Your task to perform on an android device: open app "Pluto TV - Live TV and Movies" (install if not already installed) Image 0: 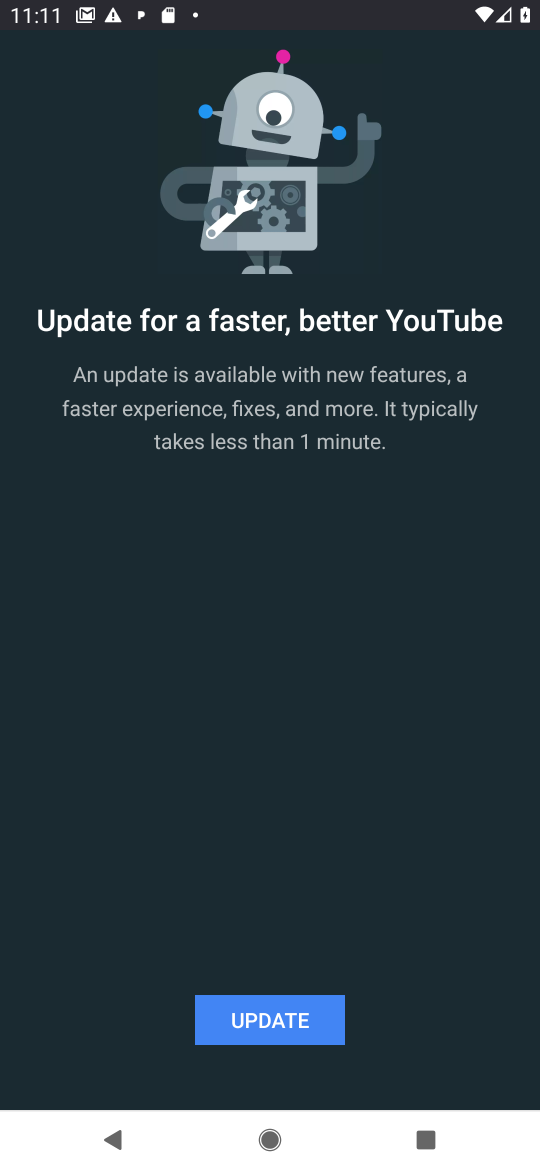
Step 0: press back button
Your task to perform on an android device: open app "Pluto TV - Live TV and Movies" (install if not already installed) Image 1: 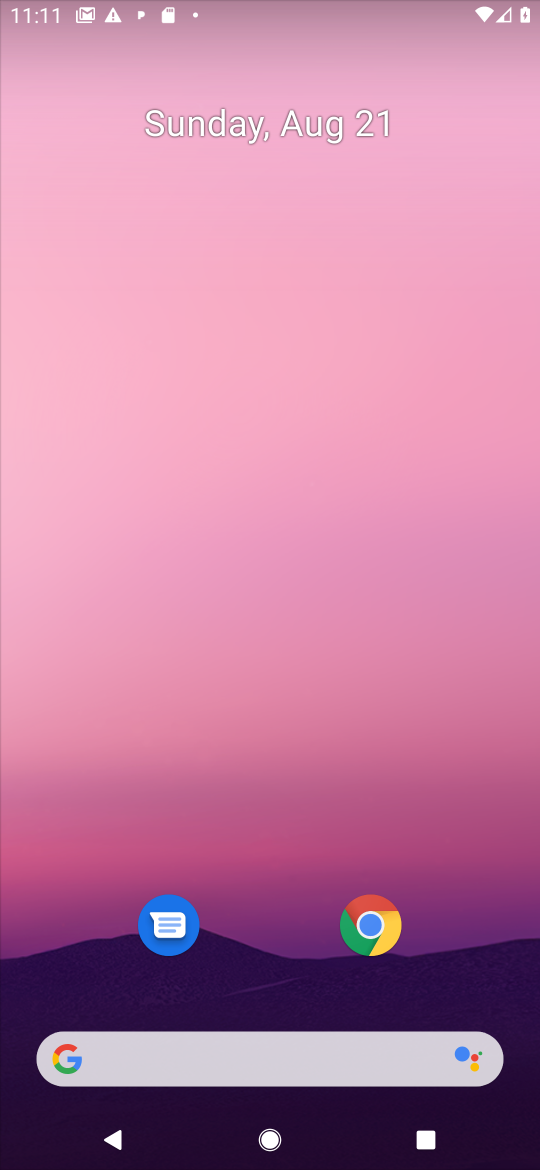
Step 1: drag from (241, 999) to (293, 70)
Your task to perform on an android device: open app "Pluto TV - Live TV and Movies" (install if not already installed) Image 2: 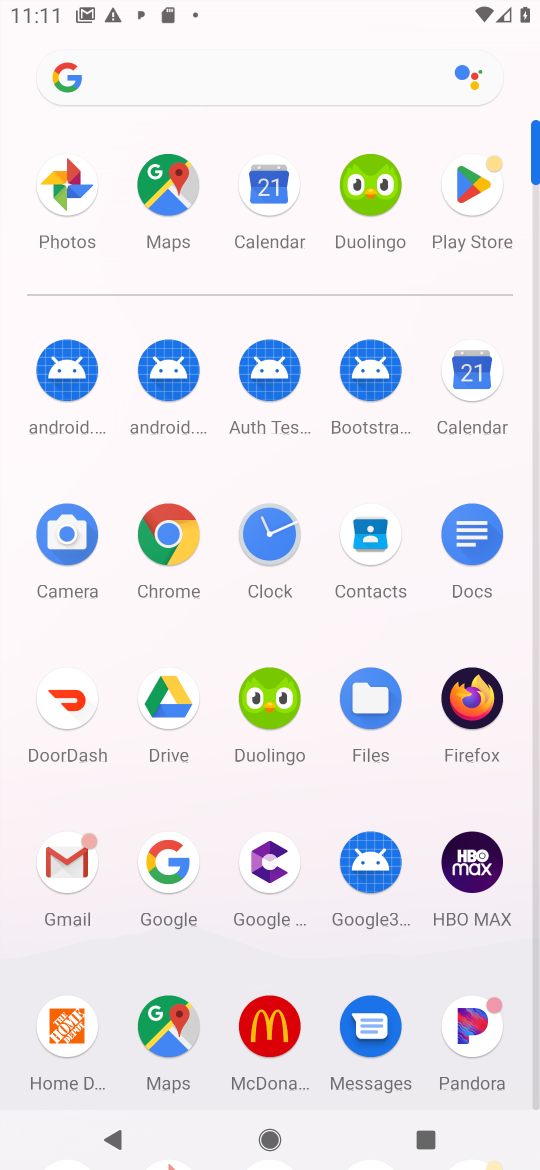
Step 2: click (457, 192)
Your task to perform on an android device: open app "Pluto TV - Live TV and Movies" (install if not already installed) Image 3: 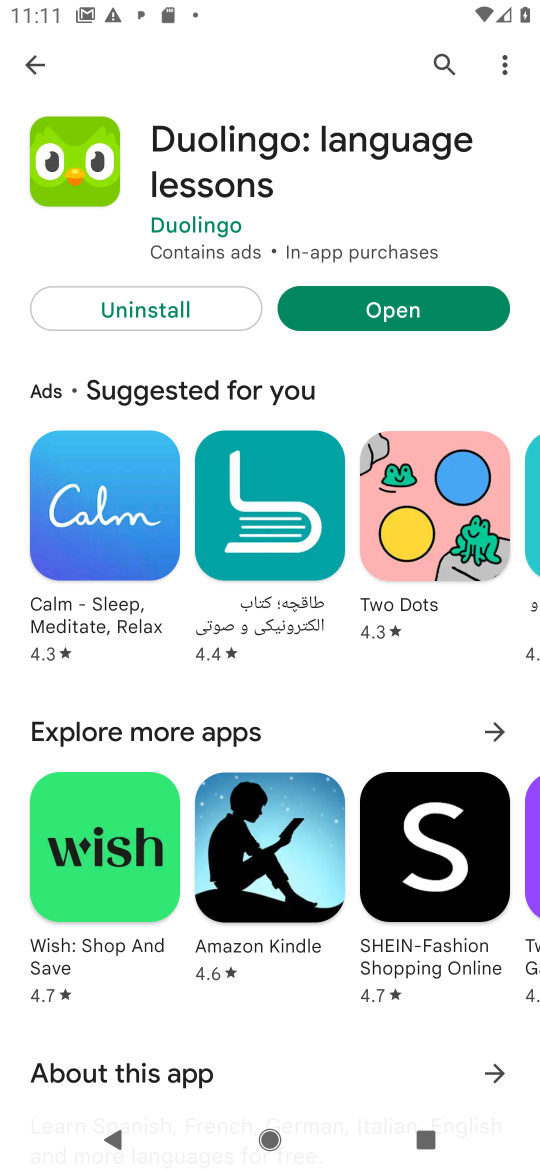
Step 3: click (431, 64)
Your task to perform on an android device: open app "Pluto TV - Live TV and Movies" (install if not already installed) Image 4: 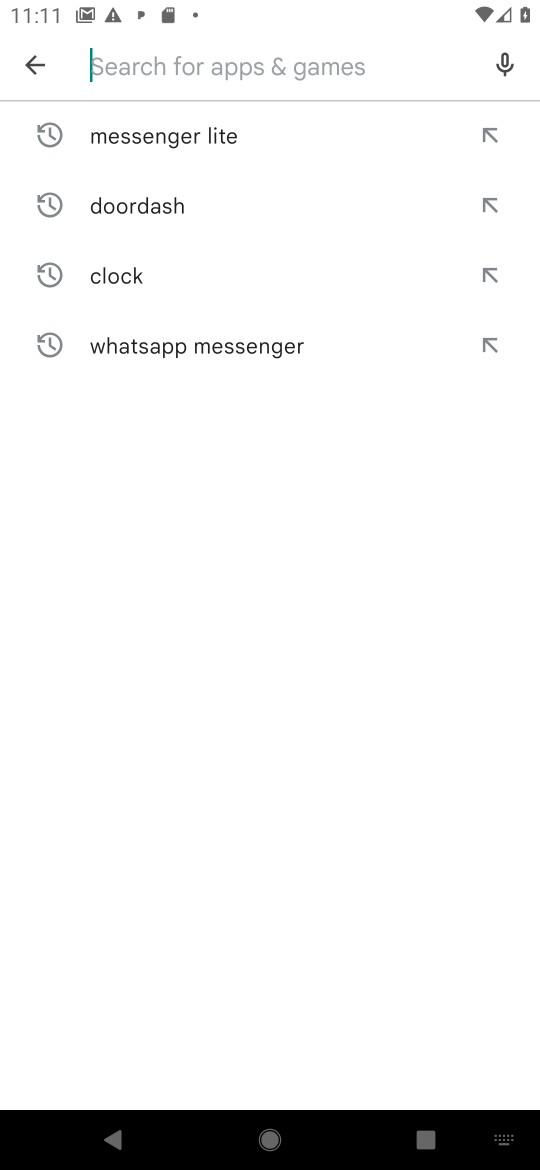
Step 4: click (290, 79)
Your task to perform on an android device: open app "Pluto TV - Live TV and Movies" (install if not already installed) Image 5: 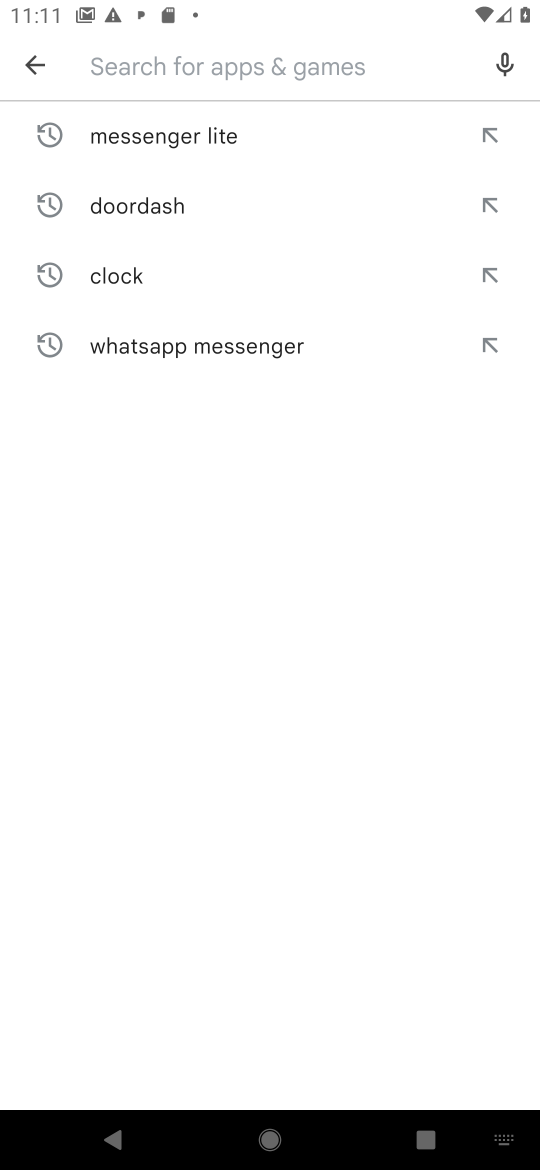
Step 5: click (144, 59)
Your task to perform on an android device: open app "Pluto TV - Live TV and Movies" (install if not already installed) Image 6: 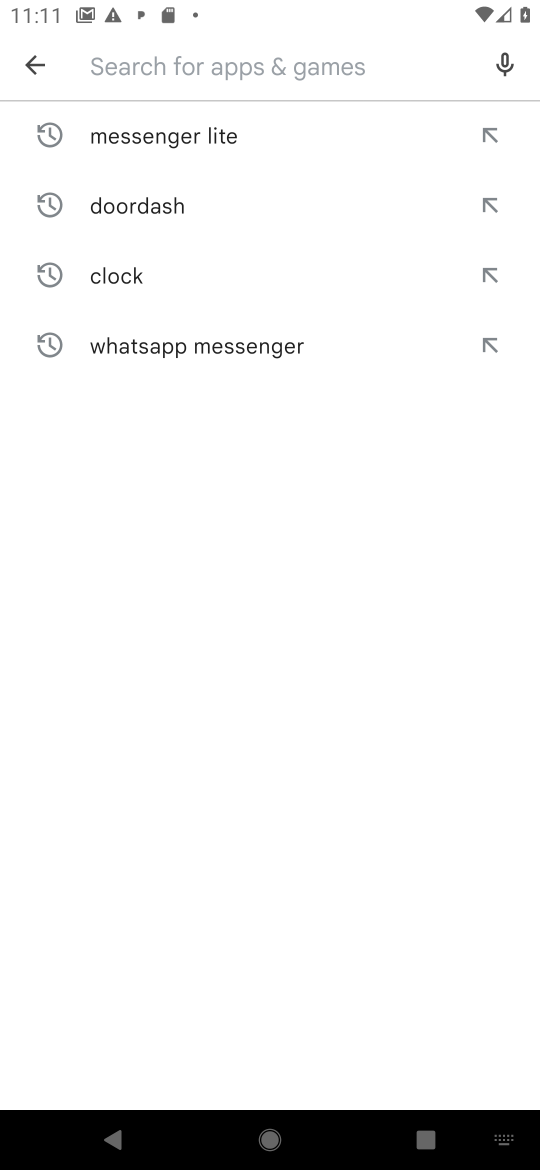
Step 6: type "plutotv"
Your task to perform on an android device: open app "Pluto TV - Live TV and Movies" (install if not already installed) Image 7: 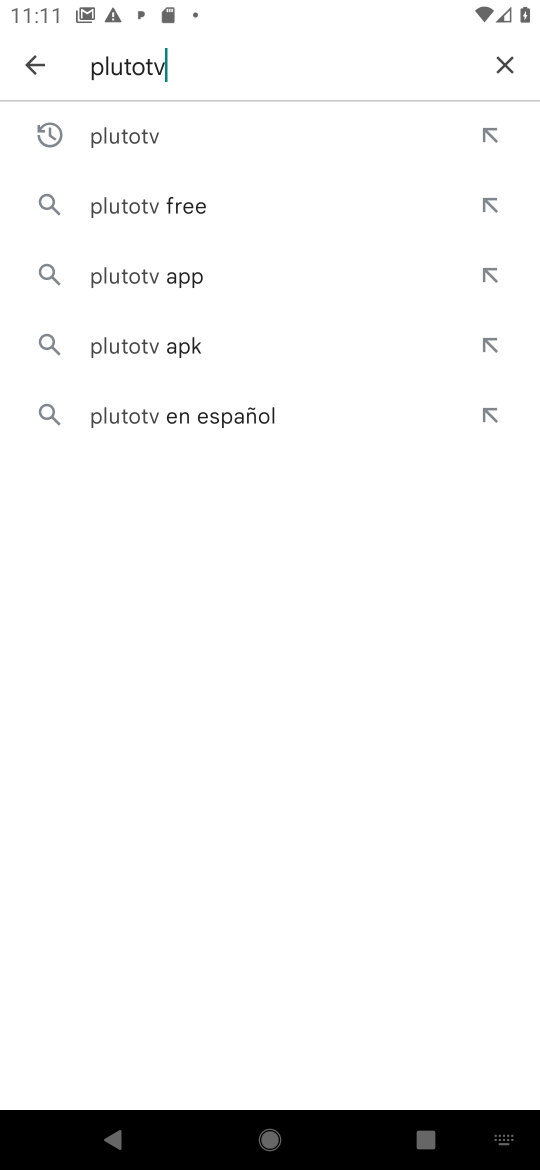
Step 7: click (176, 134)
Your task to perform on an android device: open app "Pluto TV - Live TV and Movies" (install if not already installed) Image 8: 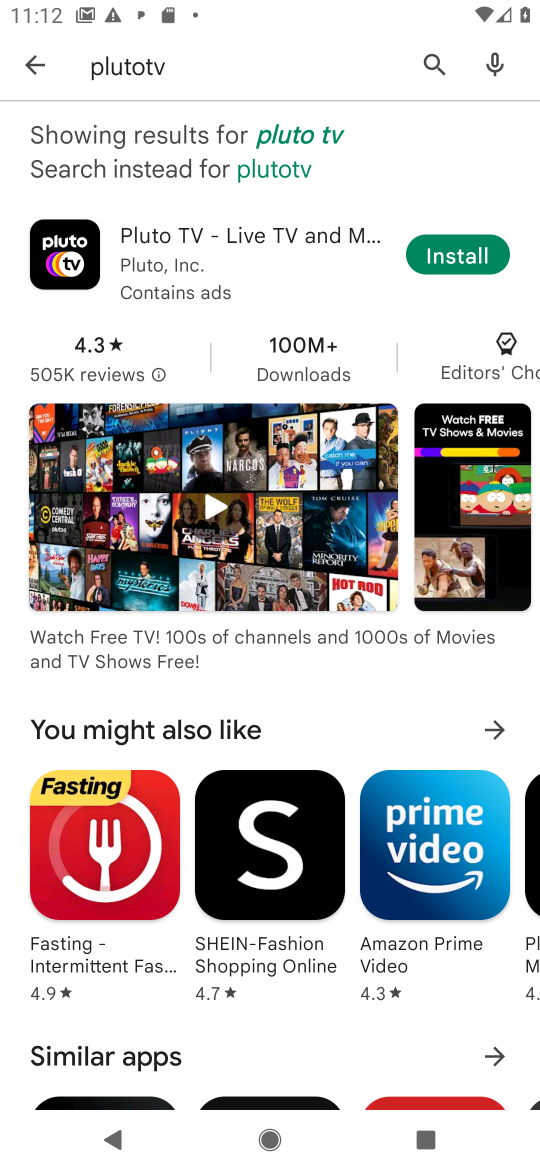
Step 8: click (438, 265)
Your task to perform on an android device: open app "Pluto TV - Live TV and Movies" (install if not already installed) Image 9: 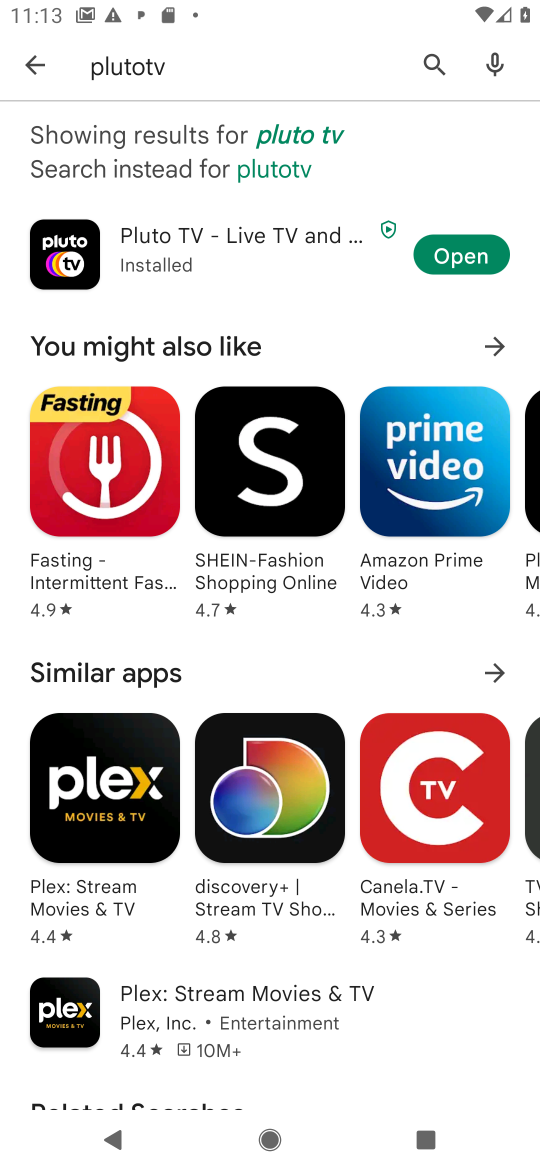
Step 9: click (446, 244)
Your task to perform on an android device: open app "Pluto TV - Live TV and Movies" (install if not already installed) Image 10: 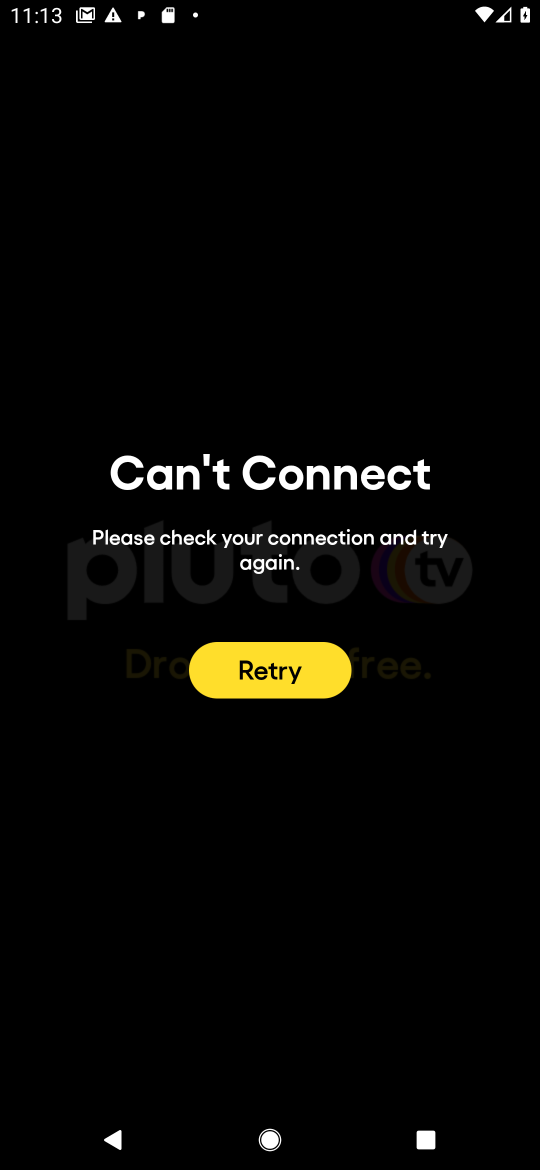
Step 10: task complete